Your task to perform on an android device: Open calendar and show me the first week of next month Image 0: 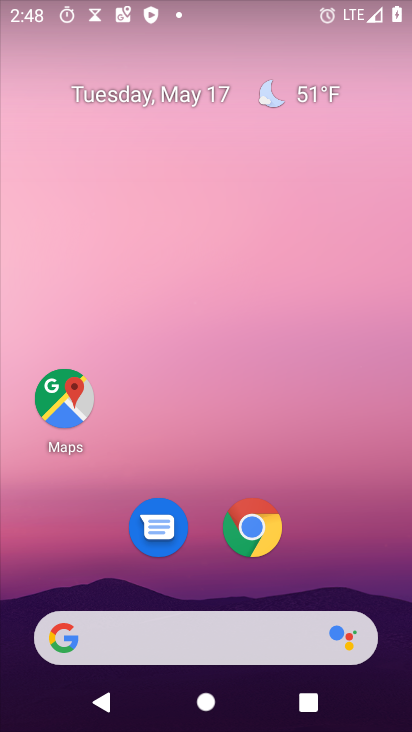
Step 0: drag from (329, 552) to (245, 80)
Your task to perform on an android device: Open calendar and show me the first week of next month Image 1: 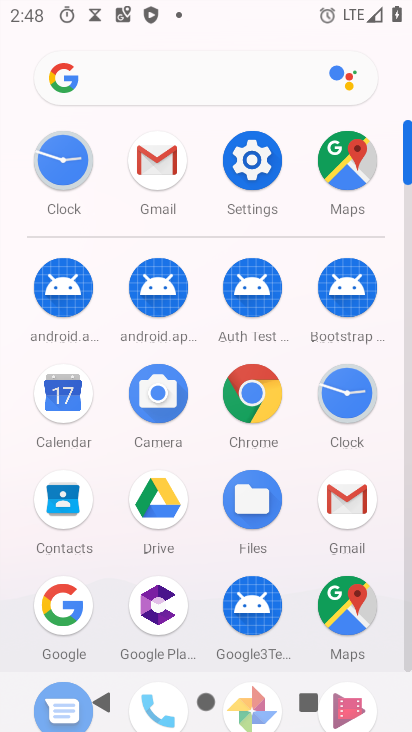
Step 1: click (63, 393)
Your task to perform on an android device: Open calendar and show me the first week of next month Image 2: 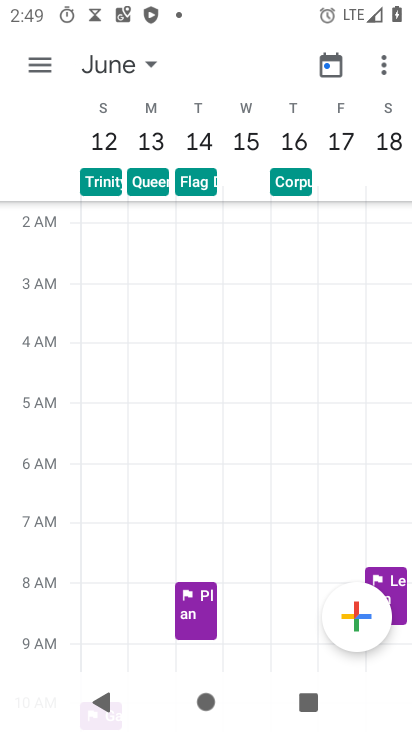
Step 2: click (331, 63)
Your task to perform on an android device: Open calendar and show me the first week of next month Image 3: 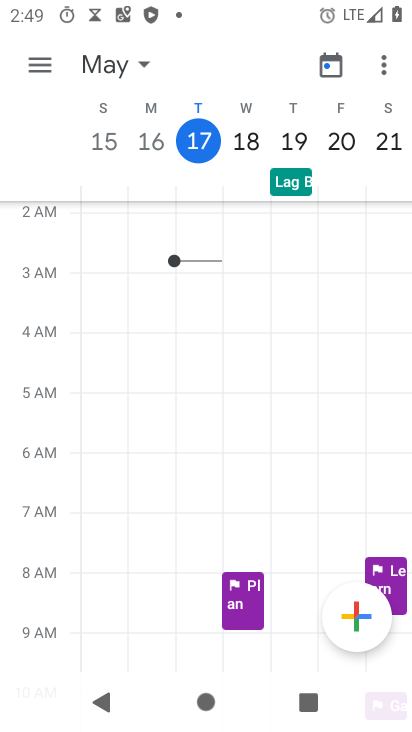
Step 3: click (144, 61)
Your task to perform on an android device: Open calendar and show me the first week of next month Image 4: 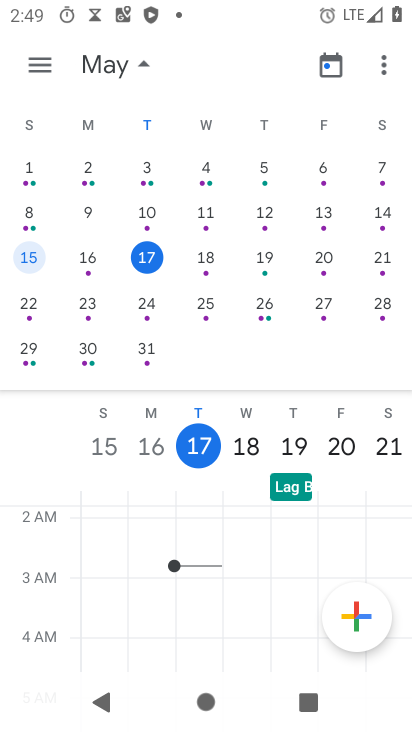
Step 4: drag from (362, 235) to (3, 238)
Your task to perform on an android device: Open calendar and show me the first week of next month Image 5: 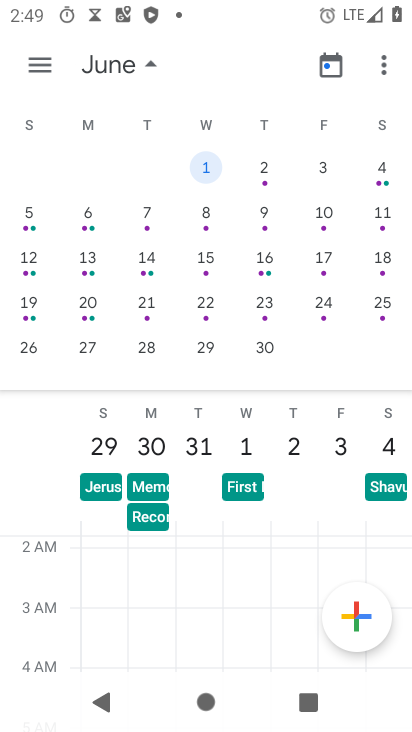
Step 5: click (84, 220)
Your task to perform on an android device: Open calendar and show me the first week of next month Image 6: 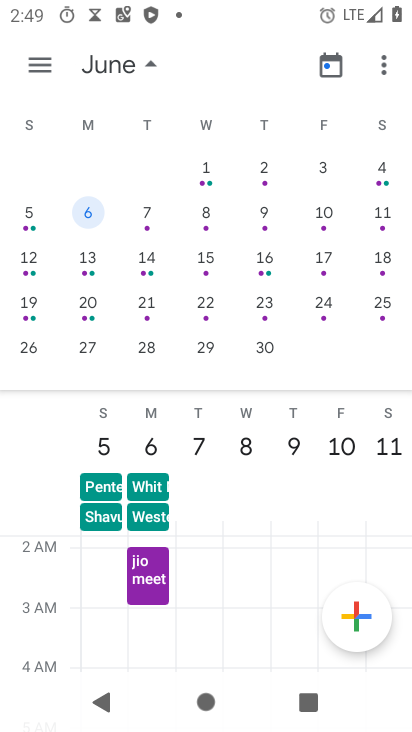
Step 6: click (41, 69)
Your task to perform on an android device: Open calendar and show me the first week of next month Image 7: 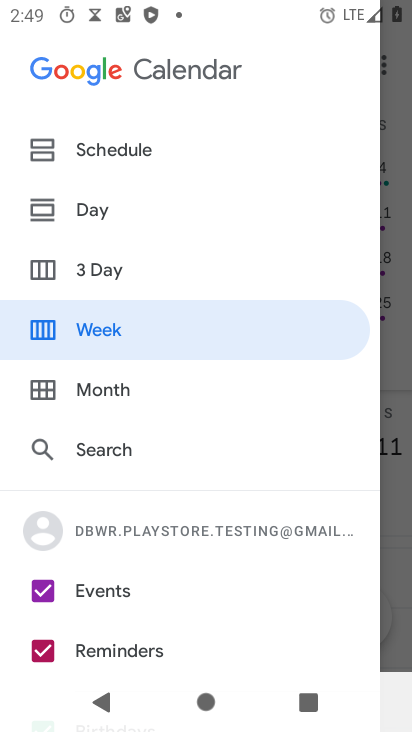
Step 7: click (116, 320)
Your task to perform on an android device: Open calendar and show me the first week of next month Image 8: 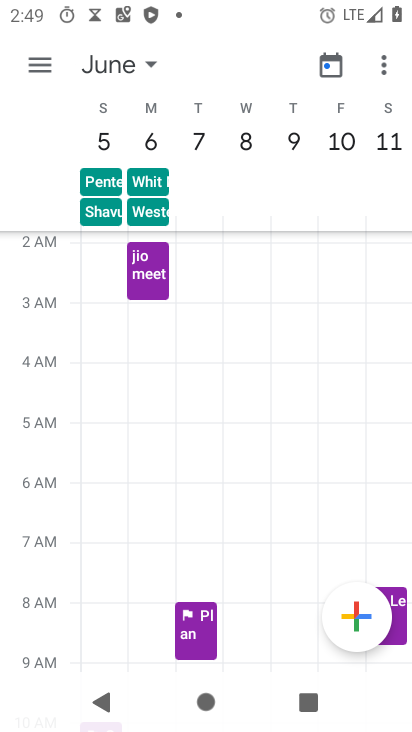
Step 8: task complete